Your task to perform on an android device: When is my next appointment? Image 0: 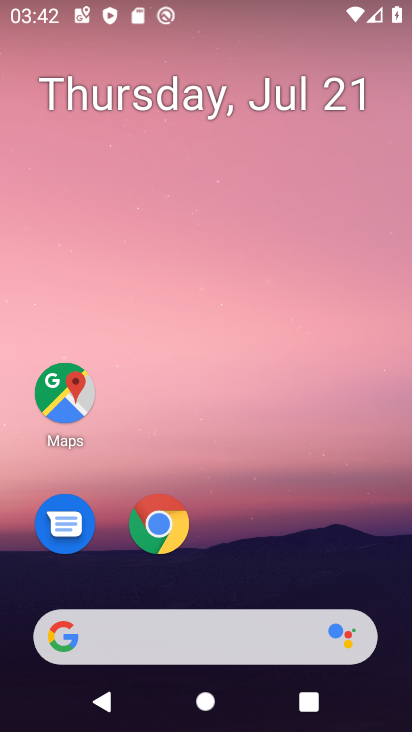
Step 0: drag from (331, 531) to (323, 74)
Your task to perform on an android device: When is my next appointment? Image 1: 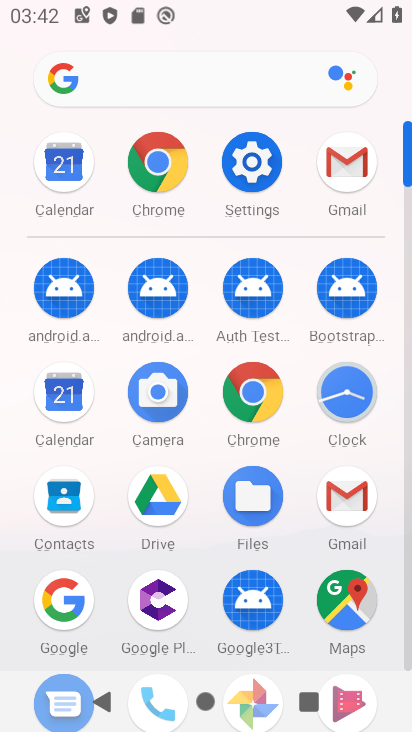
Step 1: click (82, 396)
Your task to perform on an android device: When is my next appointment? Image 2: 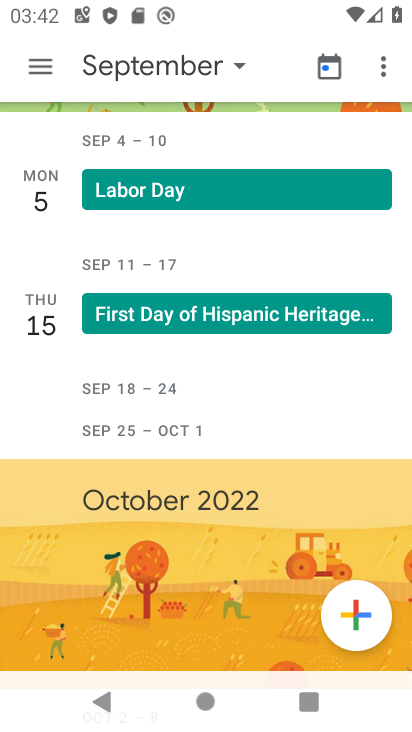
Step 2: task complete